Your task to perform on an android device: change your default location settings in chrome Image 0: 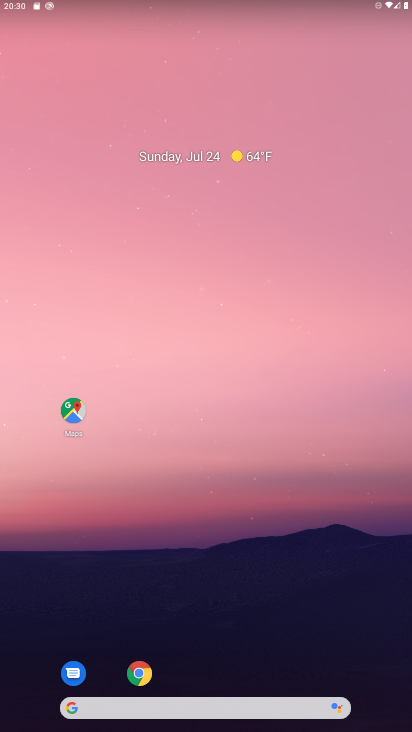
Step 0: click (137, 663)
Your task to perform on an android device: change your default location settings in chrome Image 1: 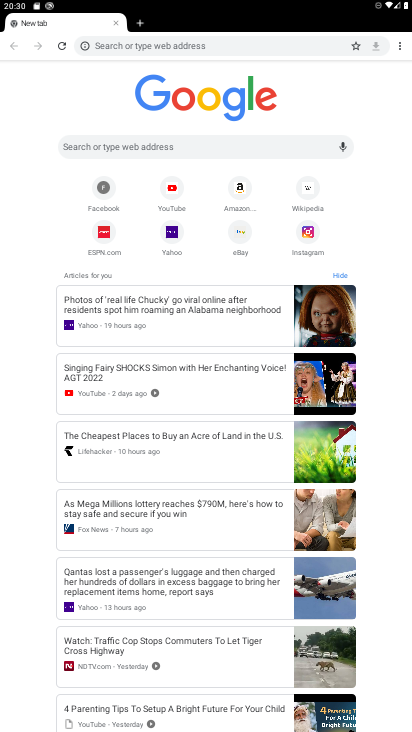
Step 1: click (399, 37)
Your task to perform on an android device: change your default location settings in chrome Image 2: 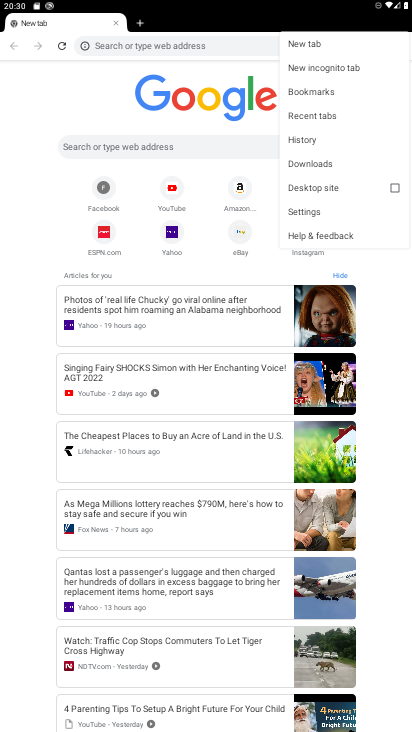
Step 2: click (317, 202)
Your task to perform on an android device: change your default location settings in chrome Image 3: 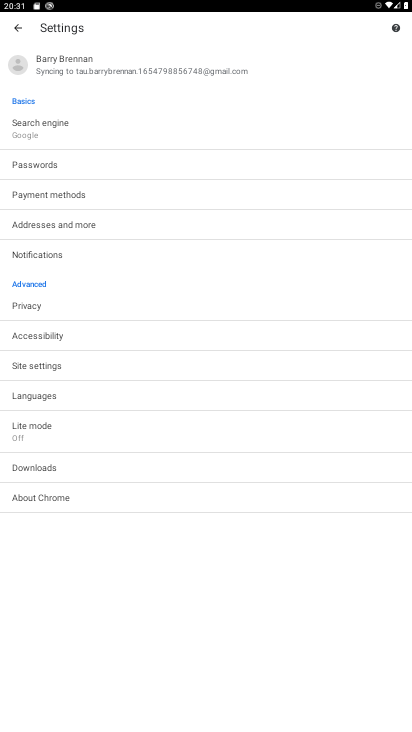
Step 3: click (65, 360)
Your task to perform on an android device: change your default location settings in chrome Image 4: 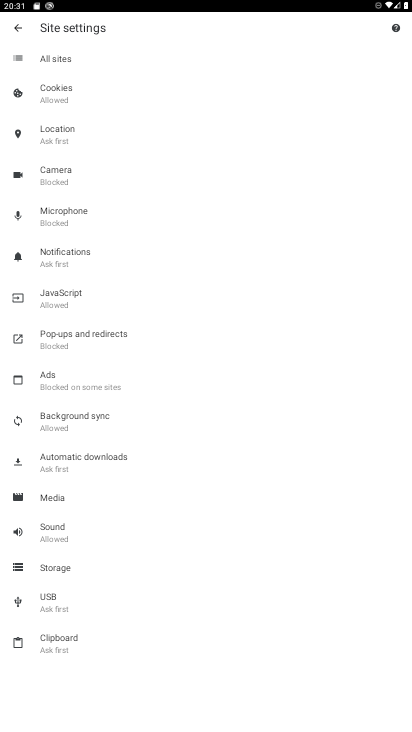
Step 4: click (108, 128)
Your task to perform on an android device: change your default location settings in chrome Image 5: 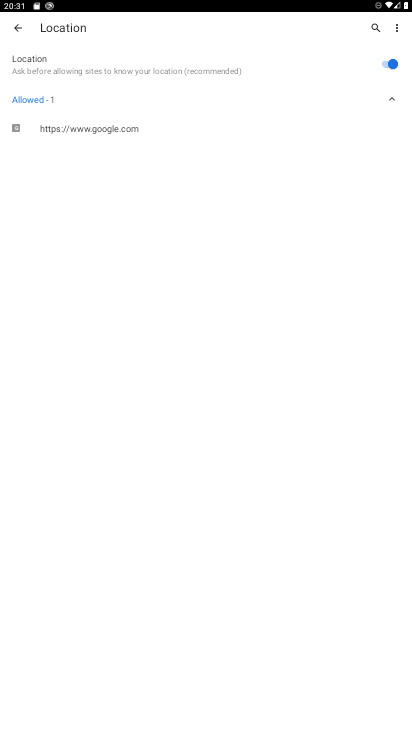
Step 5: click (395, 65)
Your task to perform on an android device: change your default location settings in chrome Image 6: 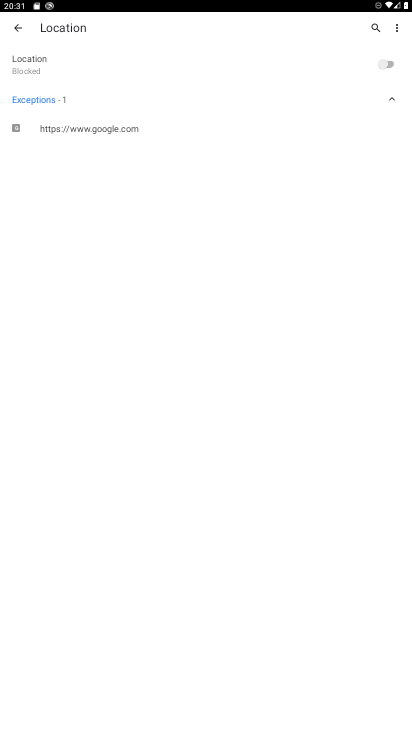
Step 6: task complete